Your task to perform on an android device: open the mobile data screen to see how much data has been used Image 0: 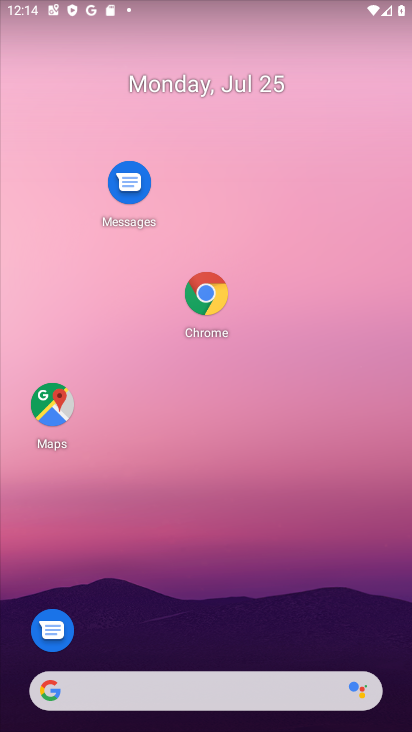
Step 0: drag from (388, 6) to (285, 729)
Your task to perform on an android device: open the mobile data screen to see how much data has been used Image 1: 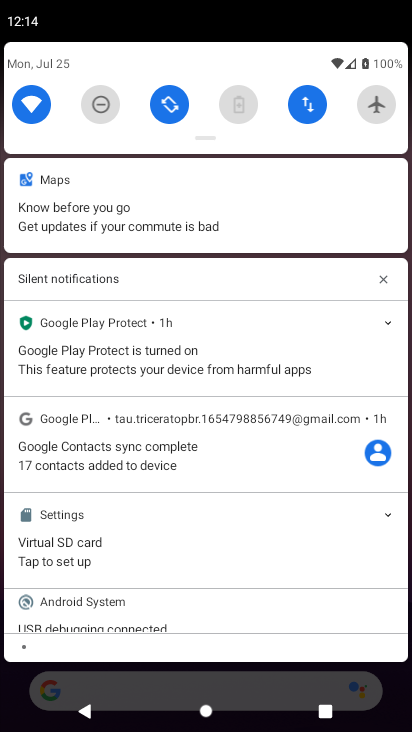
Step 1: click (328, 96)
Your task to perform on an android device: open the mobile data screen to see how much data has been used Image 2: 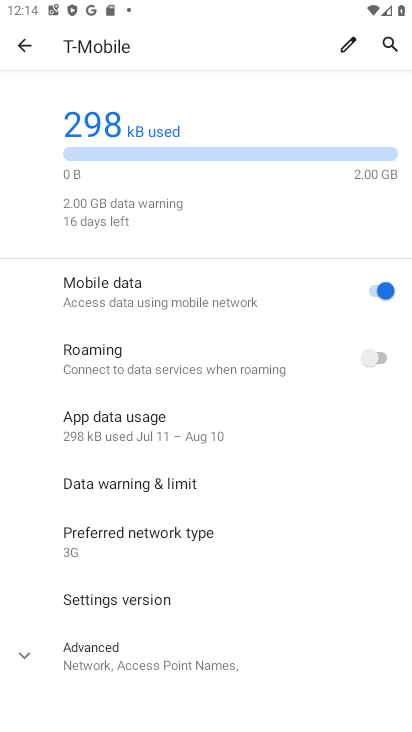
Step 2: task complete